Your task to perform on an android device: open app "Google Sheets" (install if not already installed) Image 0: 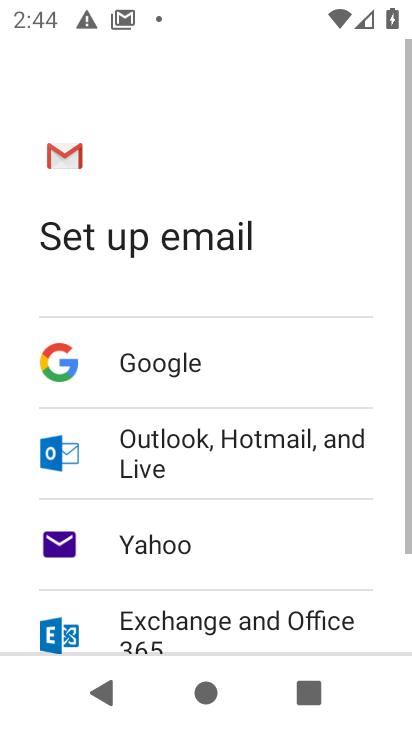
Step 0: press home button
Your task to perform on an android device: open app "Google Sheets" (install if not already installed) Image 1: 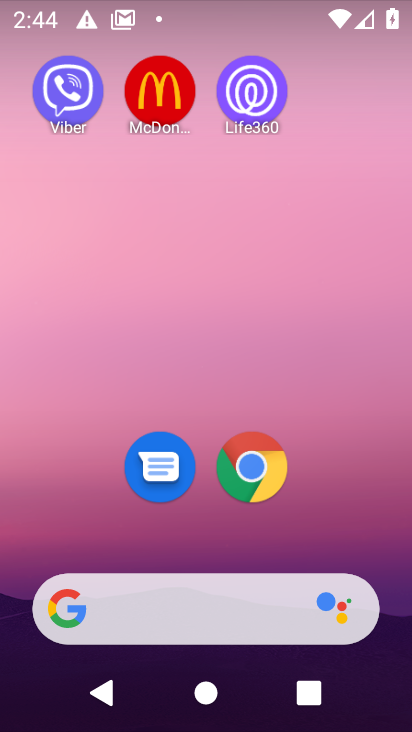
Step 1: drag from (243, 547) to (184, 109)
Your task to perform on an android device: open app "Google Sheets" (install if not already installed) Image 2: 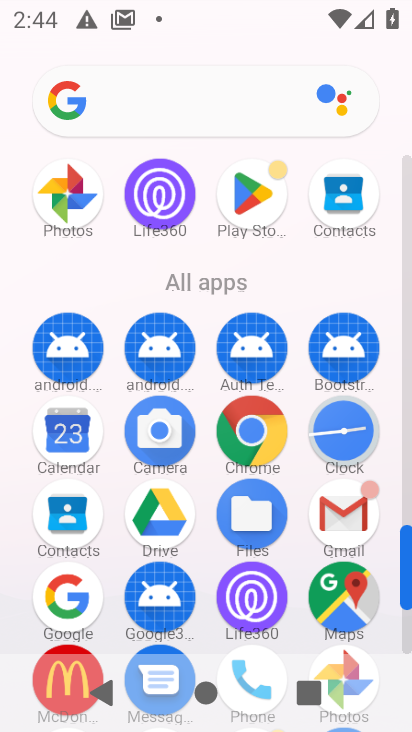
Step 2: click (251, 191)
Your task to perform on an android device: open app "Google Sheets" (install if not already installed) Image 3: 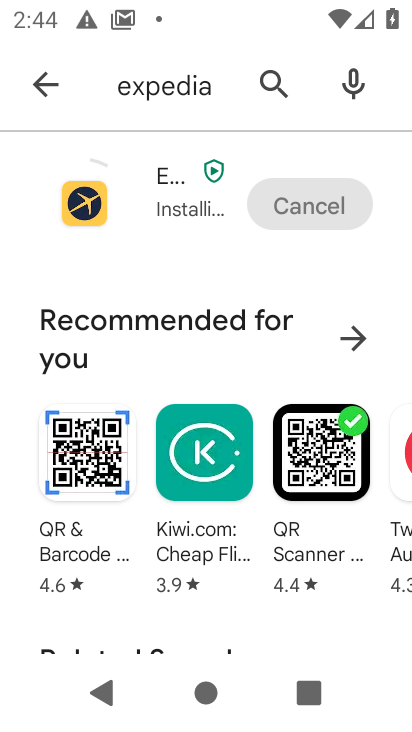
Step 3: click (272, 110)
Your task to perform on an android device: open app "Google Sheets" (install if not already installed) Image 4: 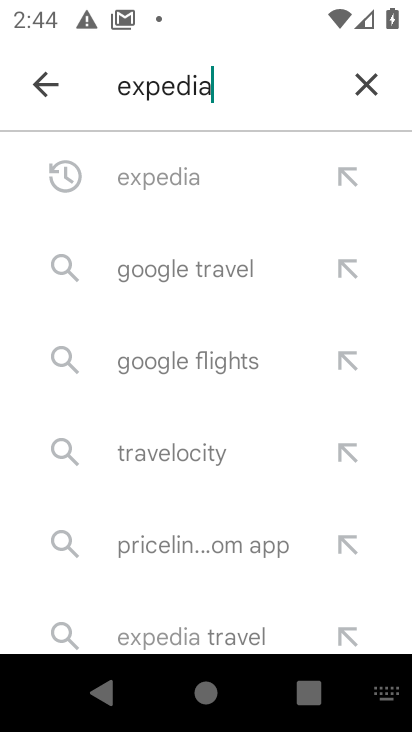
Step 4: click (362, 106)
Your task to perform on an android device: open app "Google Sheets" (install if not already installed) Image 5: 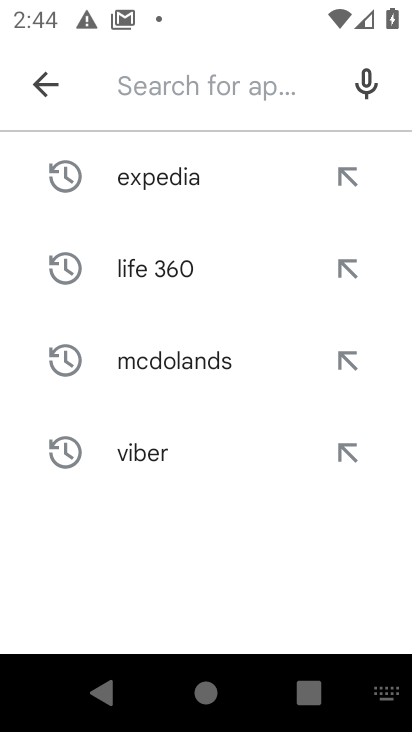
Step 5: type "google sheet"
Your task to perform on an android device: open app "Google Sheets" (install if not already installed) Image 6: 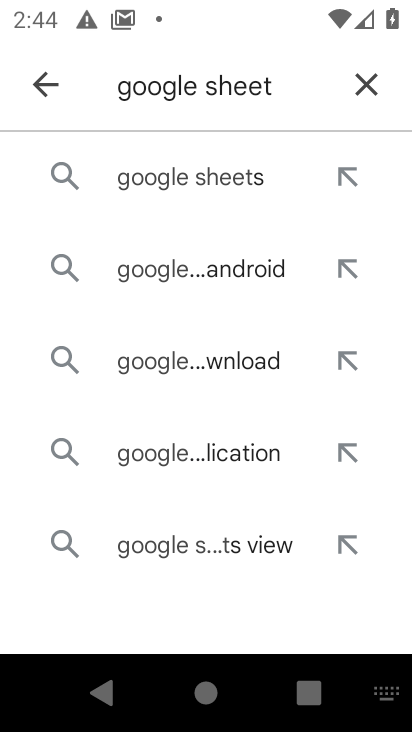
Step 6: click (196, 154)
Your task to perform on an android device: open app "Google Sheets" (install if not already installed) Image 7: 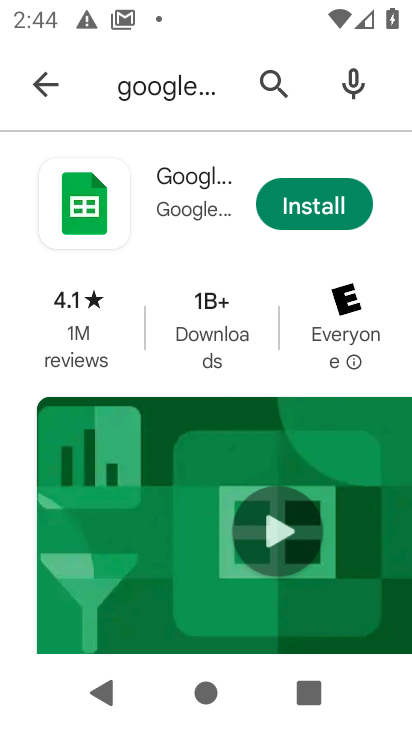
Step 7: click (290, 215)
Your task to perform on an android device: open app "Google Sheets" (install if not already installed) Image 8: 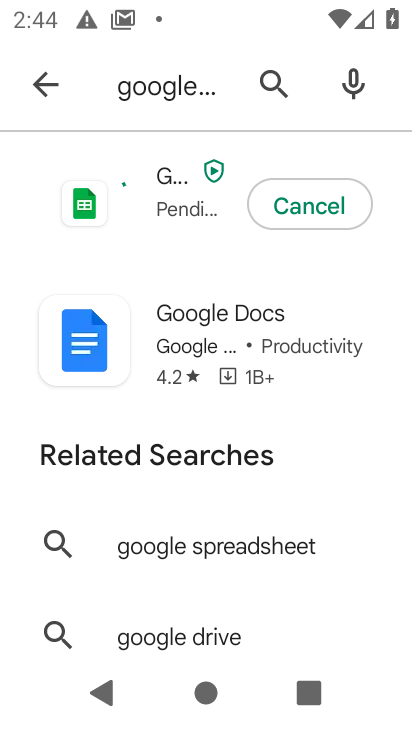
Step 8: task complete